Your task to perform on an android device: open the mobile data screen to see how much data has been used Image 0: 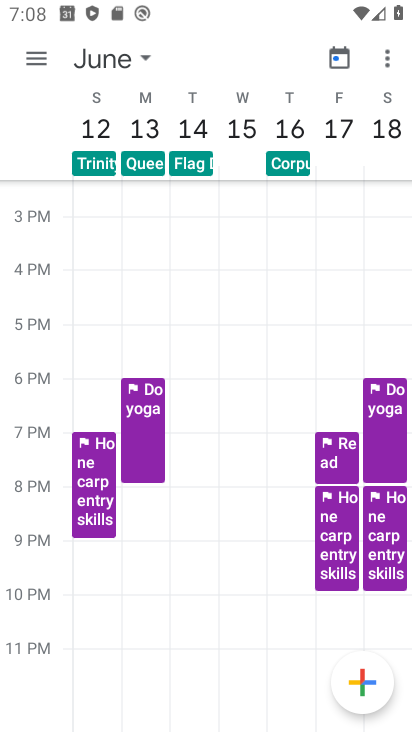
Step 0: press back button
Your task to perform on an android device: open the mobile data screen to see how much data has been used Image 1: 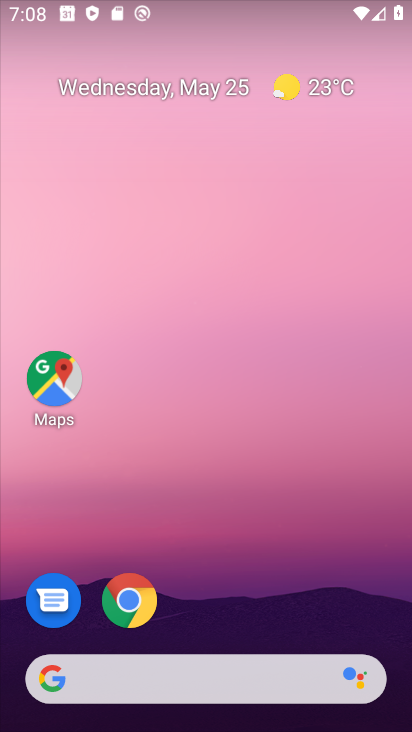
Step 1: drag from (255, 622) to (175, 207)
Your task to perform on an android device: open the mobile data screen to see how much data has been used Image 2: 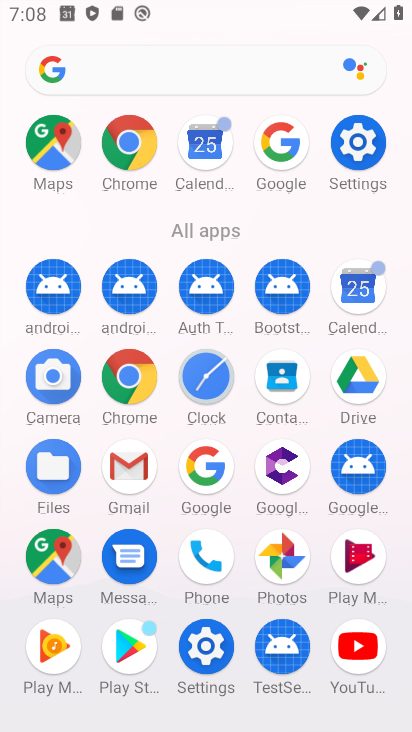
Step 2: click (355, 142)
Your task to perform on an android device: open the mobile data screen to see how much data has been used Image 3: 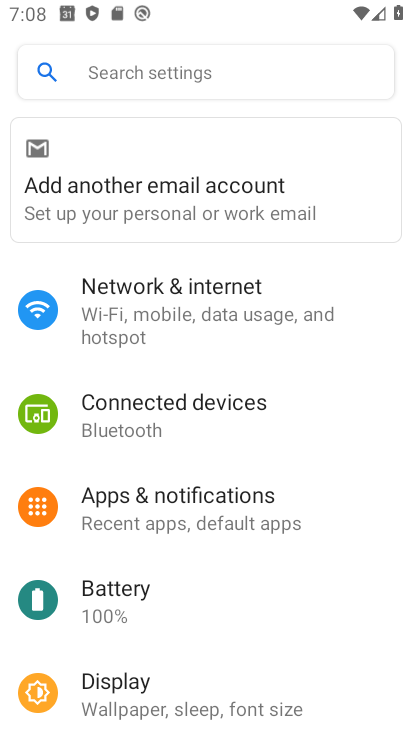
Step 3: click (194, 310)
Your task to perform on an android device: open the mobile data screen to see how much data has been used Image 4: 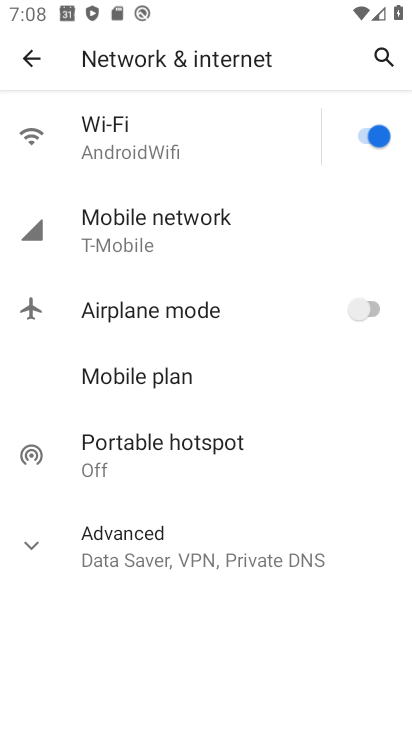
Step 4: click (117, 238)
Your task to perform on an android device: open the mobile data screen to see how much data has been used Image 5: 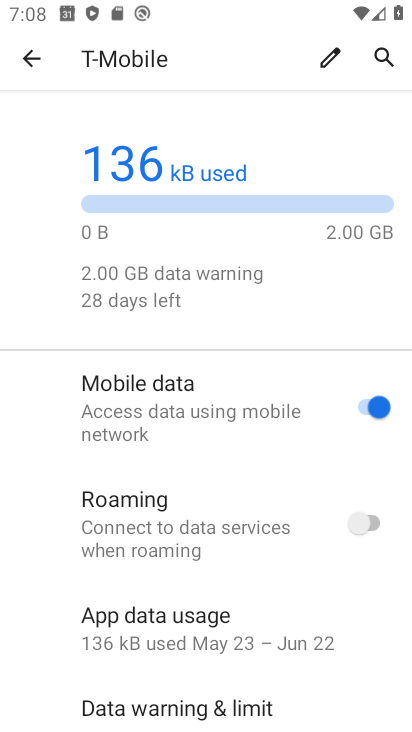
Step 5: task complete